Your task to perform on an android device: change the clock display to show seconds Image 0: 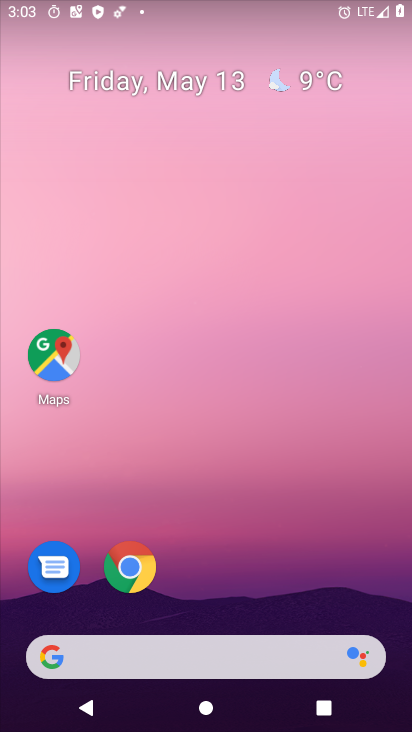
Step 0: drag from (201, 613) to (228, 86)
Your task to perform on an android device: change the clock display to show seconds Image 1: 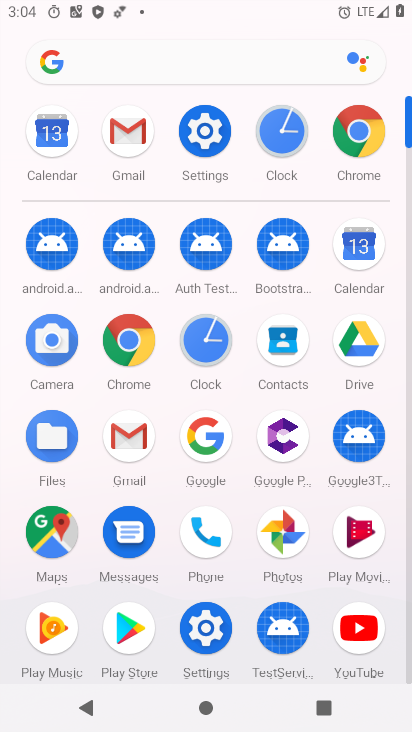
Step 1: click (213, 343)
Your task to perform on an android device: change the clock display to show seconds Image 2: 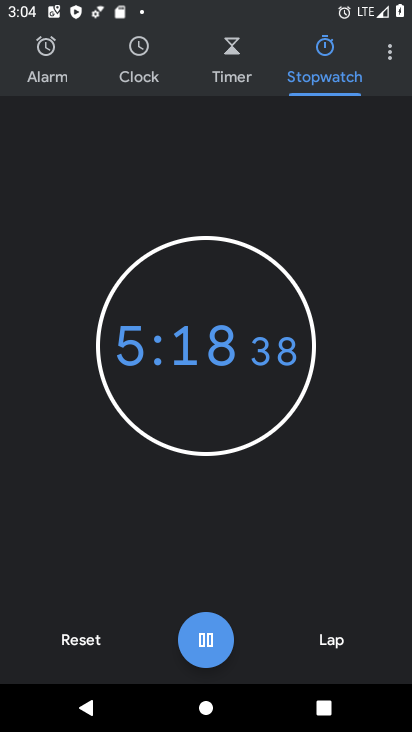
Step 2: click (69, 632)
Your task to perform on an android device: change the clock display to show seconds Image 3: 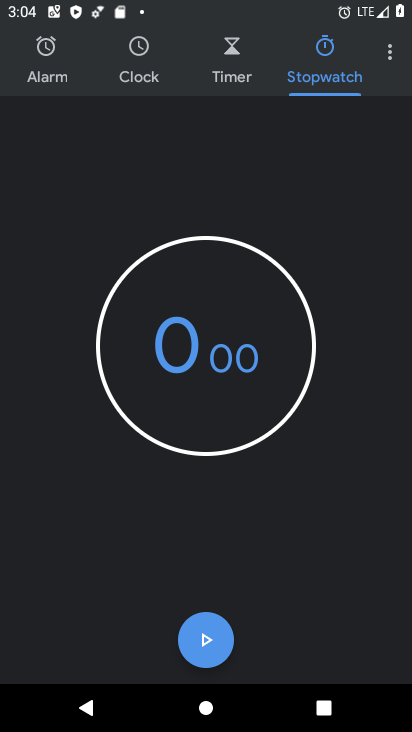
Step 3: click (403, 48)
Your task to perform on an android device: change the clock display to show seconds Image 4: 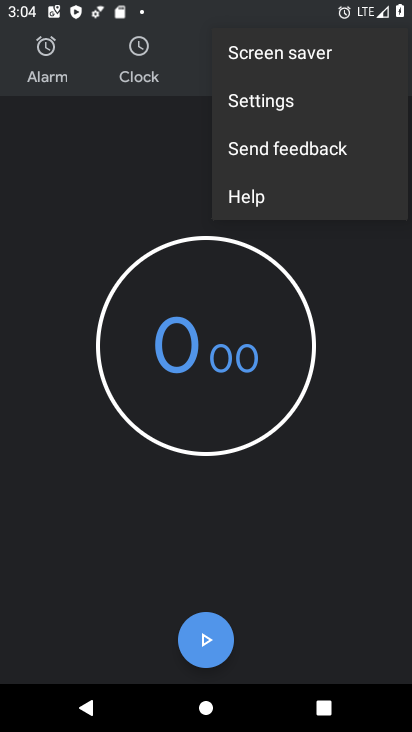
Step 4: click (271, 99)
Your task to perform on an android device: change the clock display to show seconds Image 5: 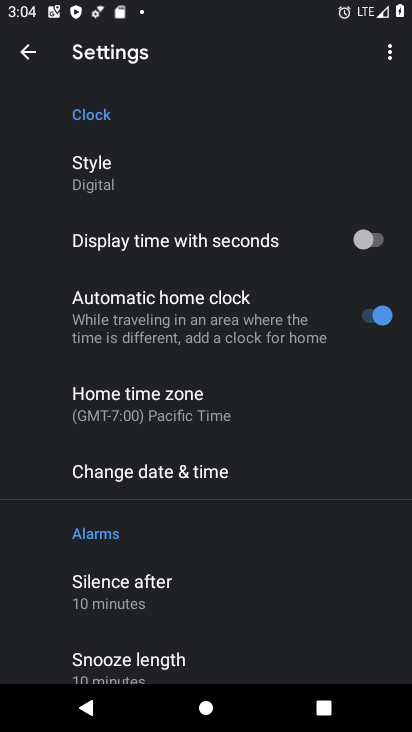
Step 5: click (133, 176)
Your task to perform on an android device: change the clock display to show seconds Image 6: 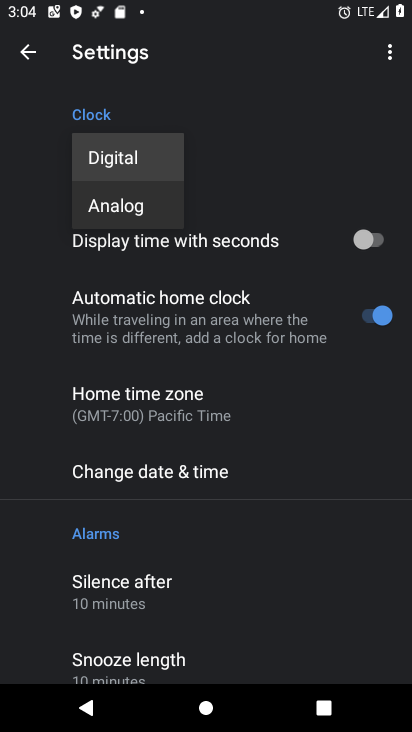
Step 6: click (125, 210)
Your task to perform on an android device: change the clock display to show seconds Image 7: 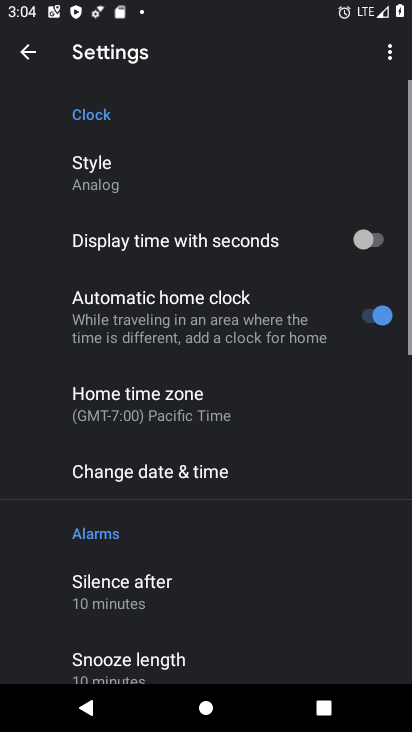
Step 7: click (394, 235)
Your task to perform on an android device: change the clock display to show seconds Image 8: 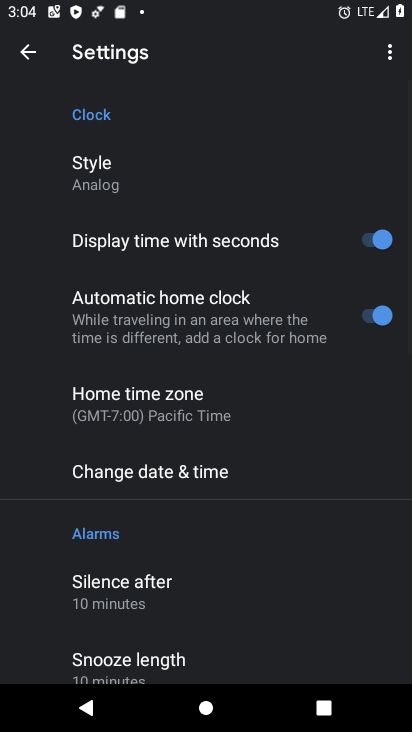
Step 8: task complete